Your task to perform on an android device: Open calendar and show me the second week of next month Image 0: 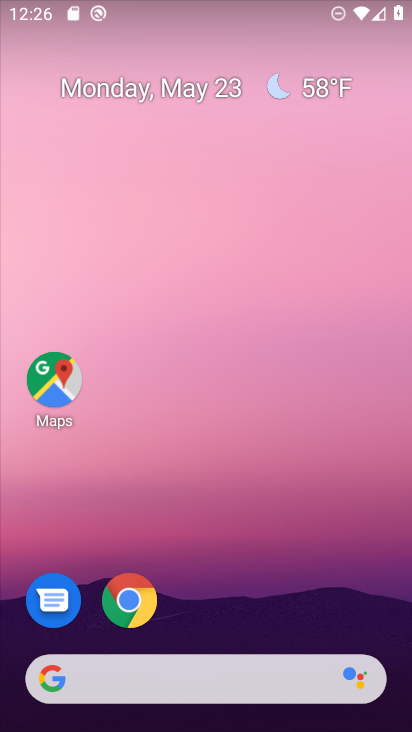
Step 0: drag from (278, 572) to (254, 255)
Your task to perform on an android device: Open calendar and show me the second week of next month Image 1: 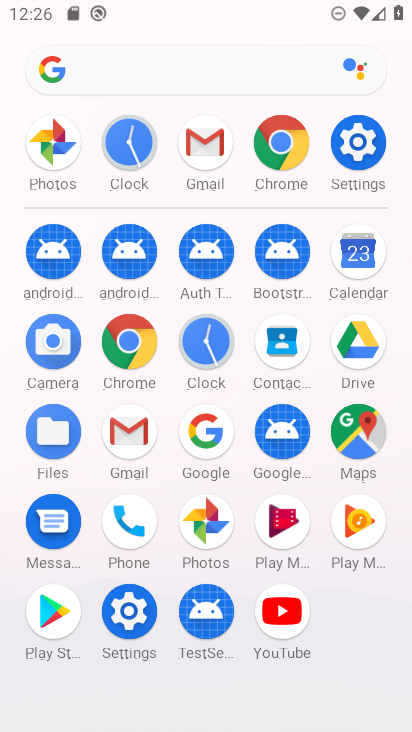
Step 1: click (356, 274)
Your task to perform on an android device: Open calendar and show me the second week of next month Image 2: 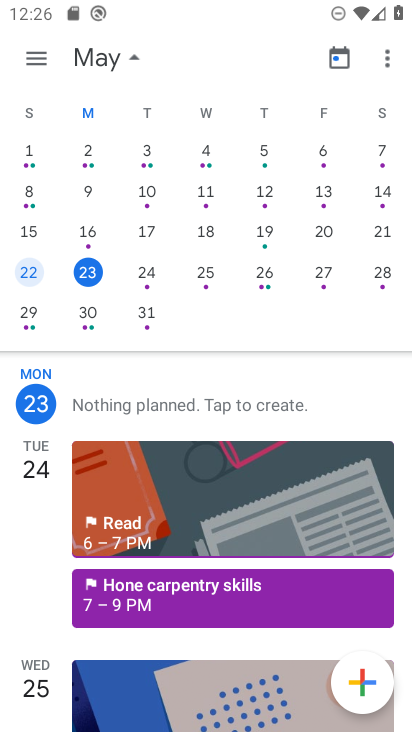
Step 2: drag from (352, 262) to (60, 272)
Your task to perform on an android device: Open calendar and show me the second week of next month Image 3: 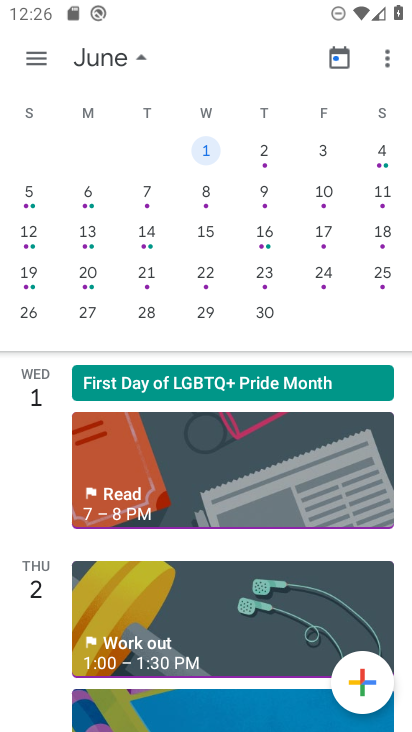
Step 3: click (145, 236)
Your task to perform on an android device: Open calendar and show me the second week of next month Image 4: 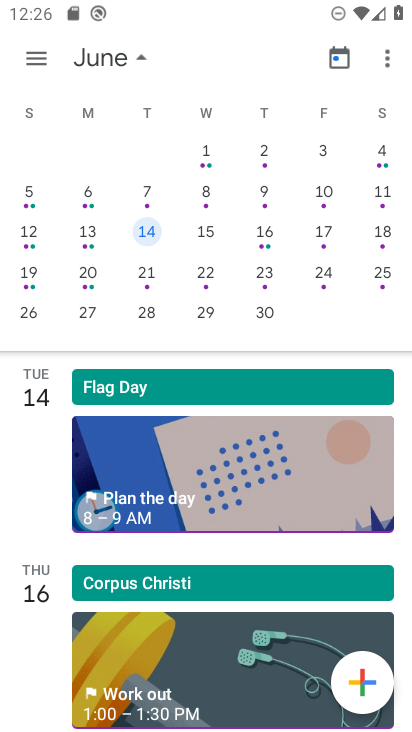
Step 4: task complete